Your task to perform on an android device: check battery use Image 0: 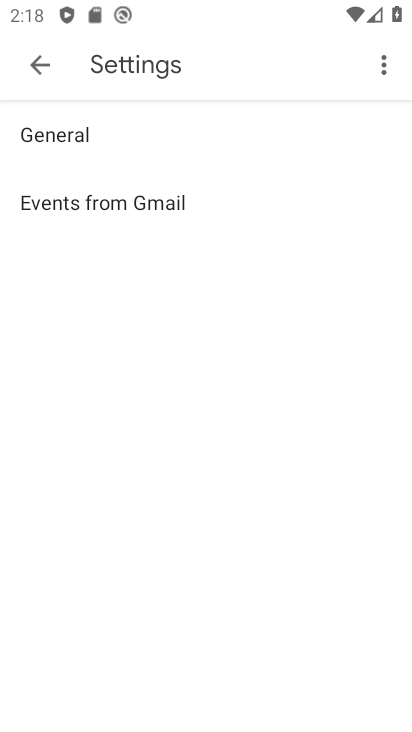
Step 0: press home button
Your task to perform on an android device: check battery use Image 1: 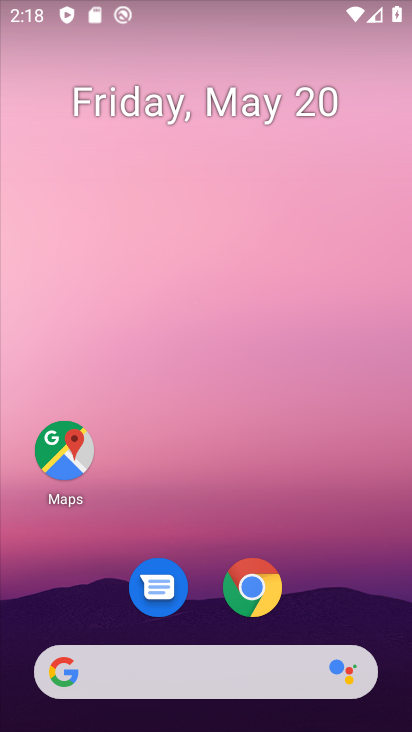
Step 1: drag from (379, 596) to (356, 143)
Your task to perform on an android device: check battery use Image 2: 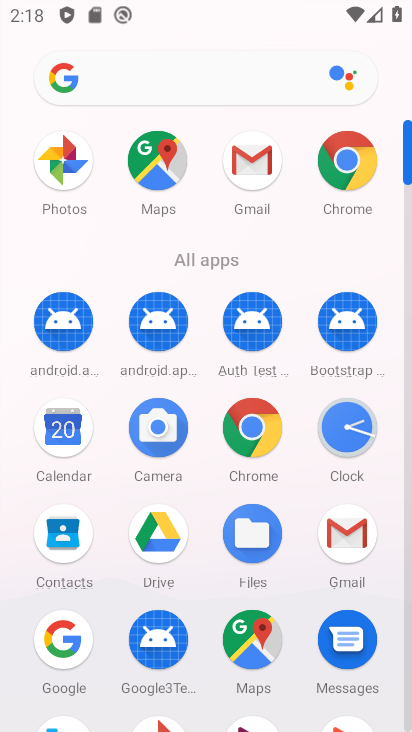
Step 2: drag from (301, 600) to (297, 387)
Your task to perform on an android device: check battery use Image 3: 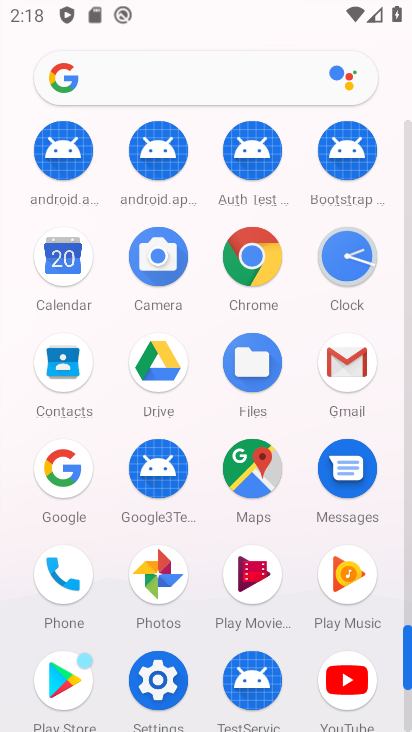
Step 3: drag from (286, 619) to (301, 450)
Your task to perform on an android device: check battery use Image 4: 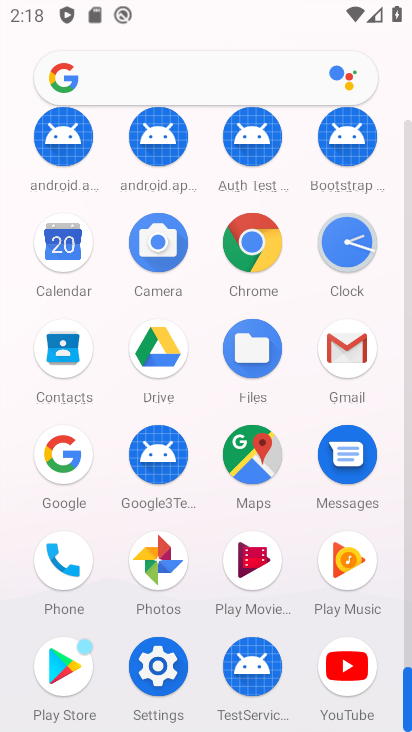
Step 4: click (173, 664)
Your task to perform on an android device: check battery use Image 5: 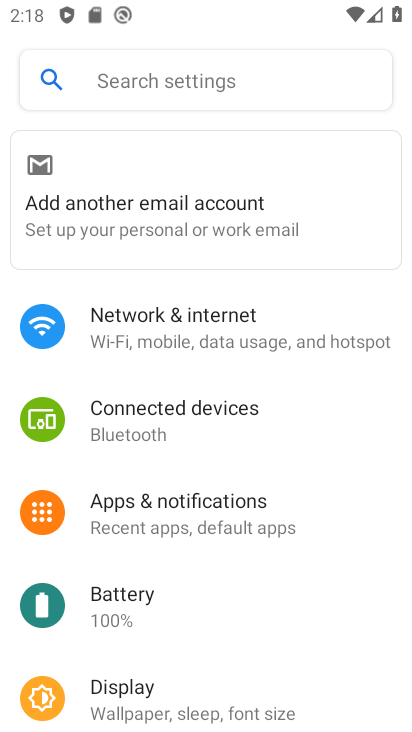
Step 5: click (171, 617)
Your task to perform on an android device: check battery use Image 6: 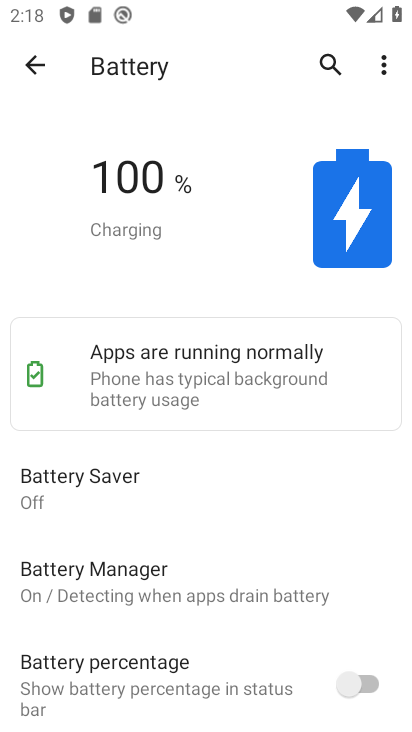
Step 6: click (382, 65)
Your task to perform on an android device: check battery use Image 7: 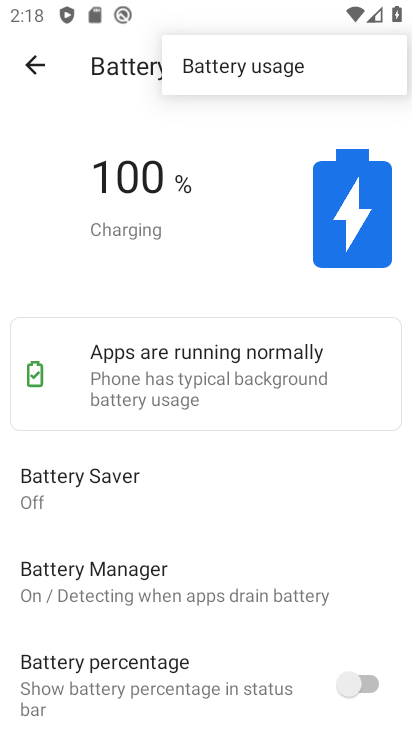
Step 7: click (296, 64)
Your task to perform on an android device: check battery use Image 8: 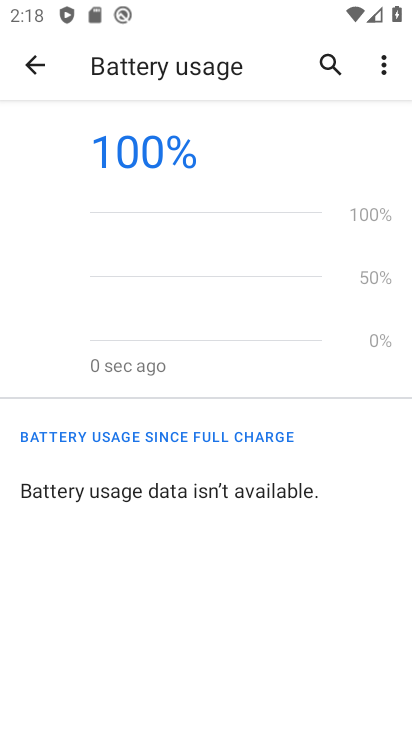
Step 8: task complete